Your task to perform on an android device: Open eBay Image 0: 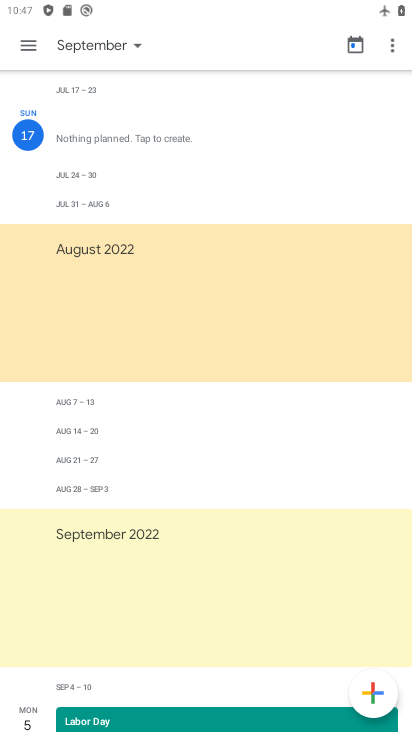
Step 0: press home button
Your task to perform on an android device: Open eBay Image 1: 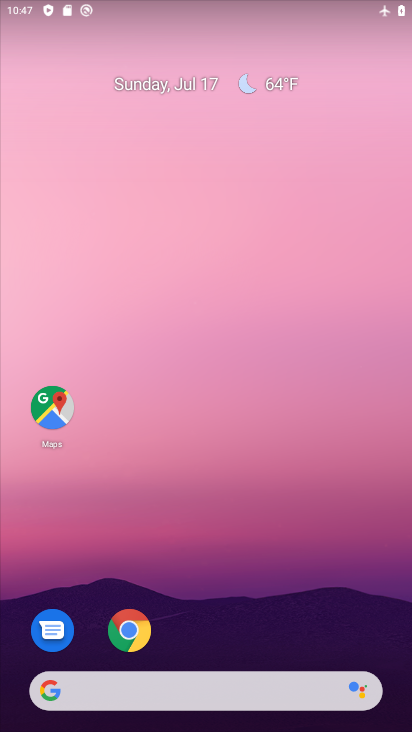
Step 1: click (128, 630)
Your task to perform on an android device: Open eBay Image 2: 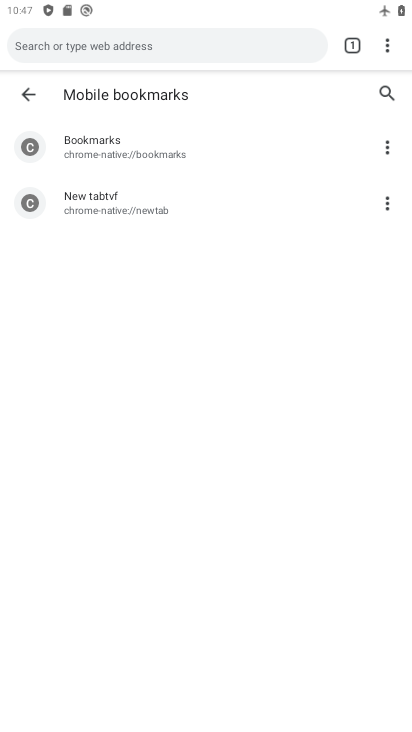
Step 2: click (118, 44)
Your task to perform on an android device: Open eBay Image 3: 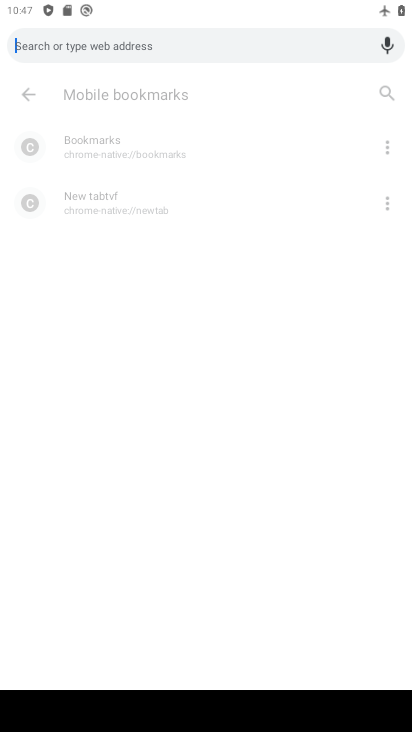
Step 3: type "eBay"
Your task to perform on an android device: Open eBay Image 4: 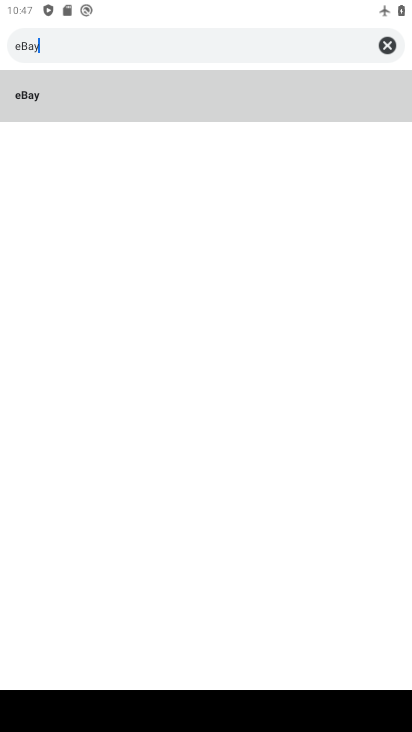
Step 4: click (26, 90)
Your task to perform on an android device: Open eBay Image 5: 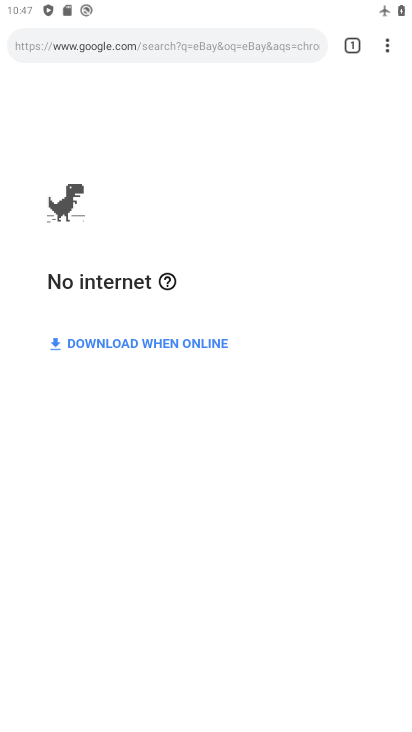
Step 5: task complete